Your task to perform on an android device: See recent photos Image 0: 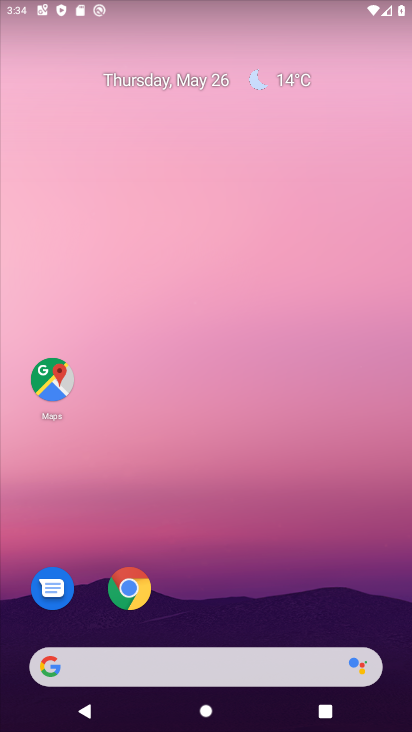
Step 0: drag from (288, 592) to (290, 88)
Your task to perform on an android device: See recent photos Image 1: 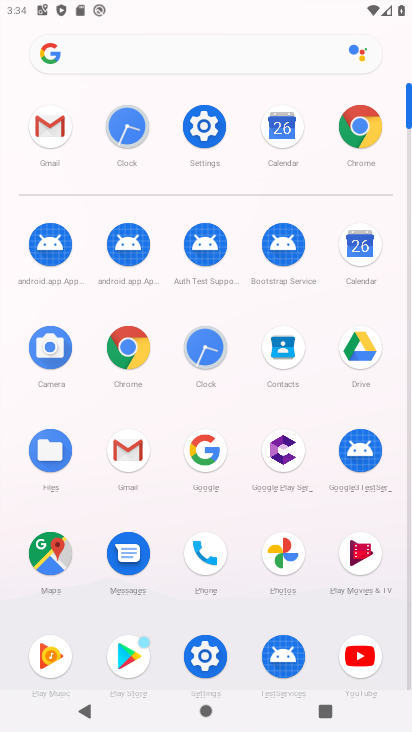
Step 1: click (294, 548)
Your task to perform on an android device: See recent photos Image 2: 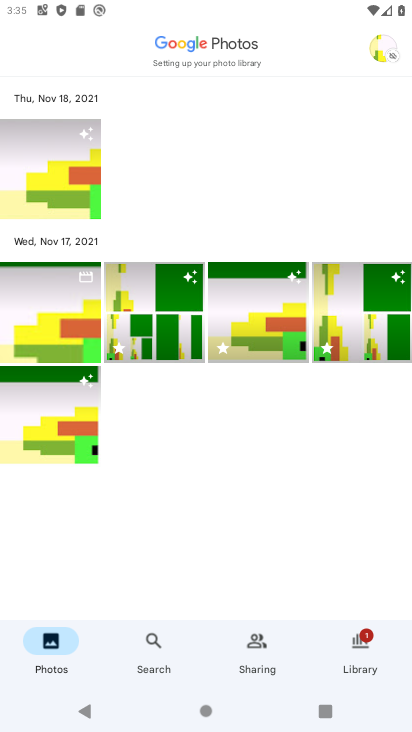
Step 2: click (358, 631)
Your task to perform on an android device: See recent photos Image 3: 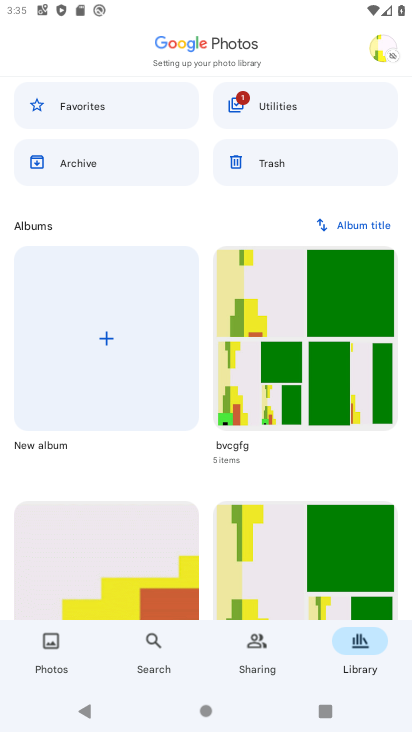
Step 3: click (90, 168)
Your task to perform on an android device: See recent photos Image 4: 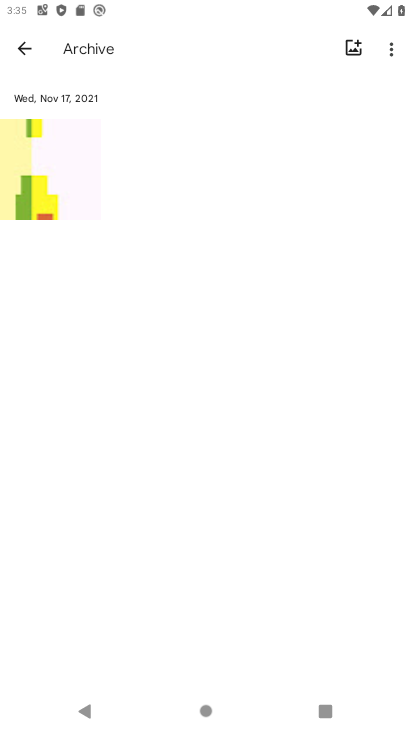
Step 4: task complete